Your task to perform on an android device: open wifi settings Image 0: 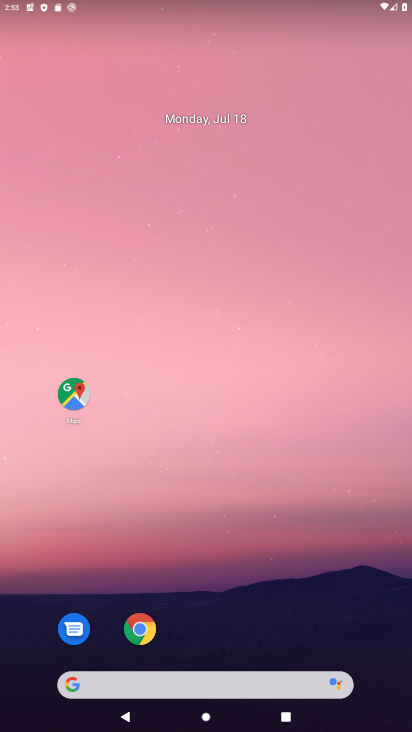
Step 0: drag from (206, 621) to (236, 186)
Your task to perform on an android device: open wifi settings Image 1: 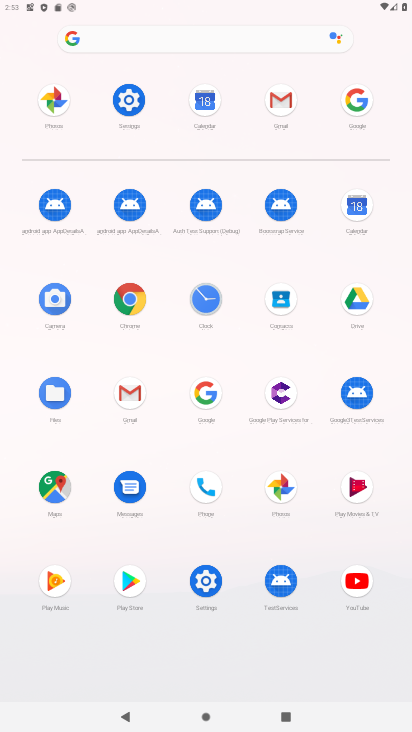
Step 1: click (133, 100)
Your task to perform on an android device: open wifi settings Image 2: 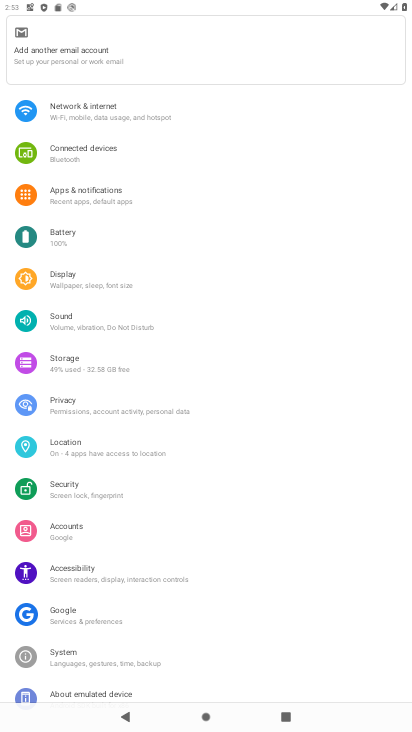
Step 2: click (143, 123)
Your task to perform on an android device: open wifi settings Image 3: 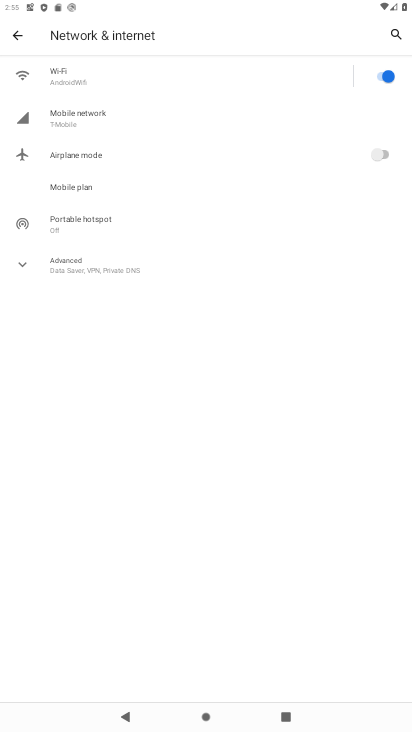
Step 3: click (84, 82)
Your task to perform on an android device: open wifi settings Image 4: 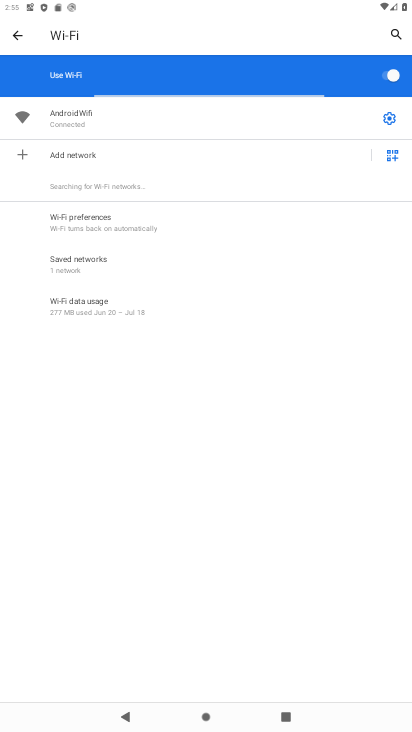
Step 4: task complete